Your task to perform on an android device: Go to ESPN.com Image 0: 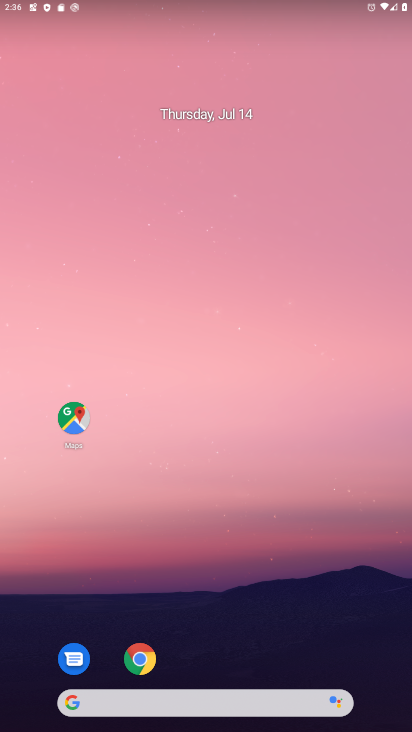
Step 0: click (76, 713)
Your task to perform on an android device: Go to ESPN.com Image 1: 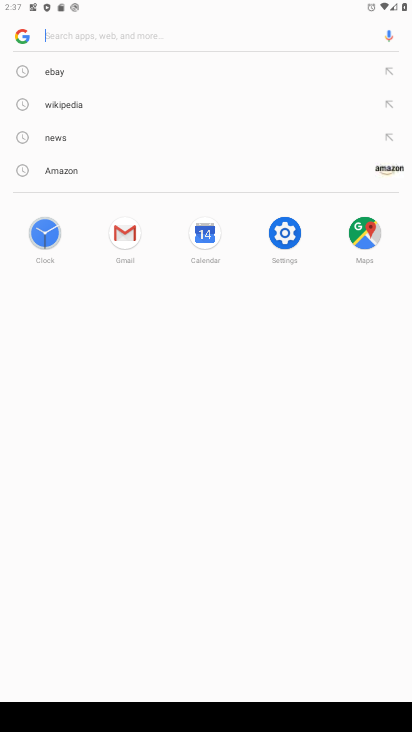
Step 1: type "ESPN.com"
Your task to perform on an android device: Go to ESPN.com Image 2: 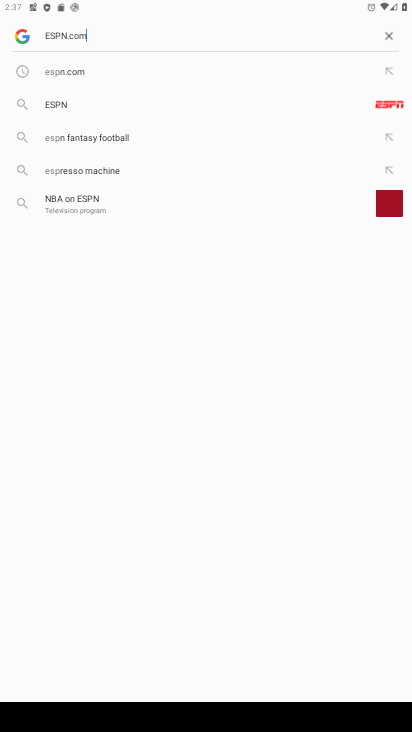
Step 2: press enter
Your task to perform on an android device: Go to ESPN.com Image 3: 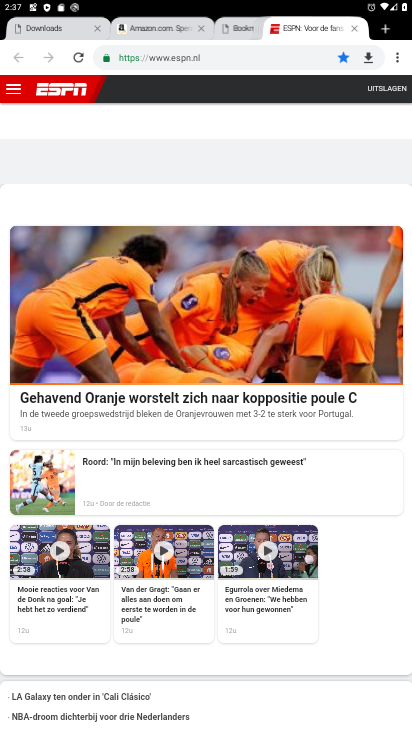
Step 3: task complete